Your task to perform on an android device: Check out the best rated 4k TV on Best Buy. Image 0: 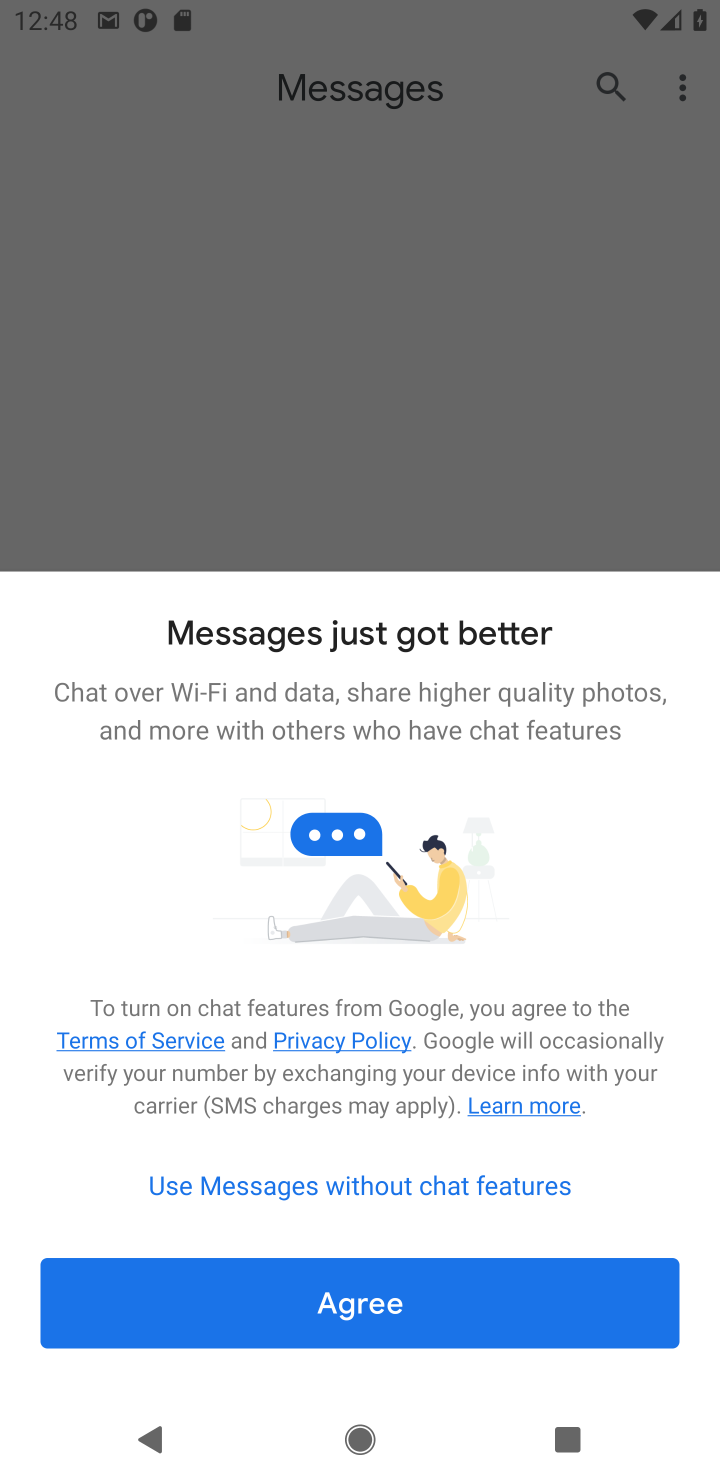
Step 0: click (399, 1283)
Your task to perform on an android device: Check out the best rated 4k TV on Best Buy. Image 1: 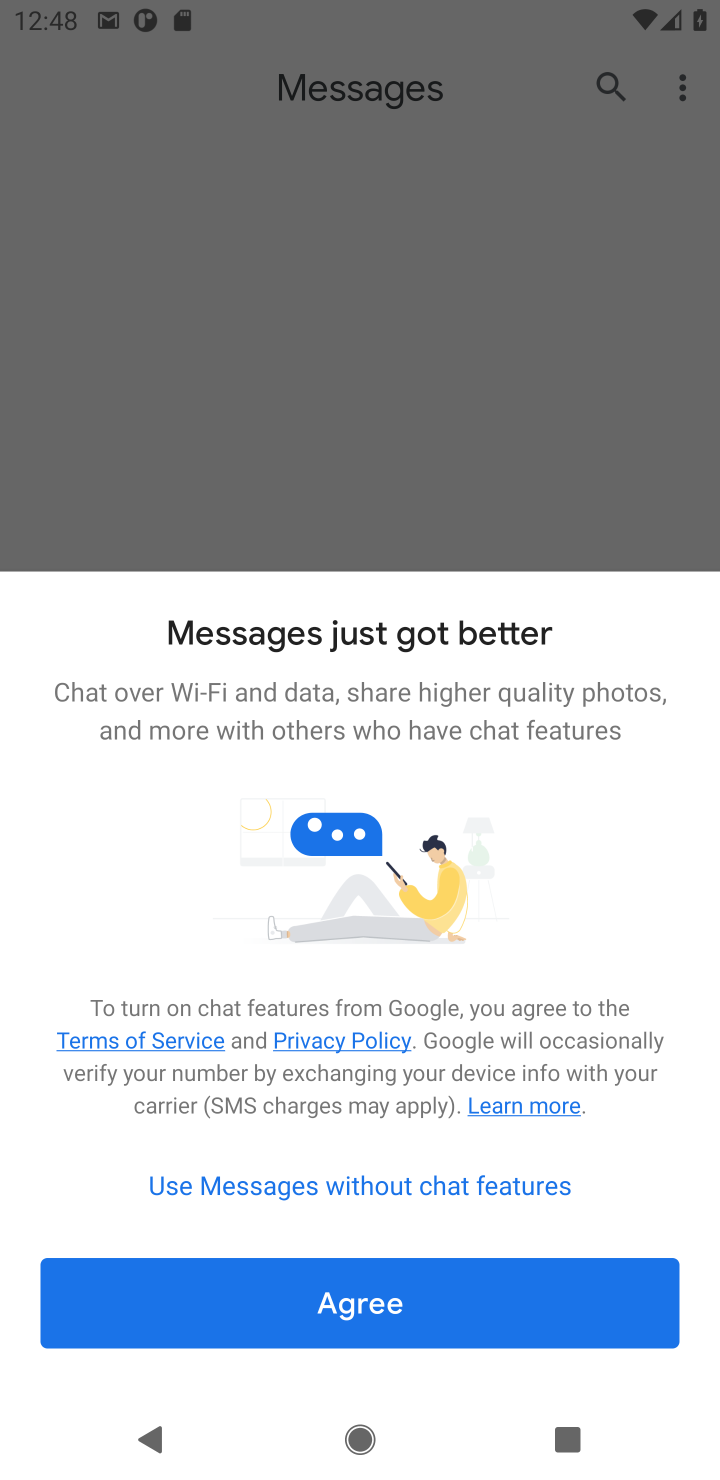
Step 1: task complete